Your task to perform on an android device: toggle wifi Image 0: 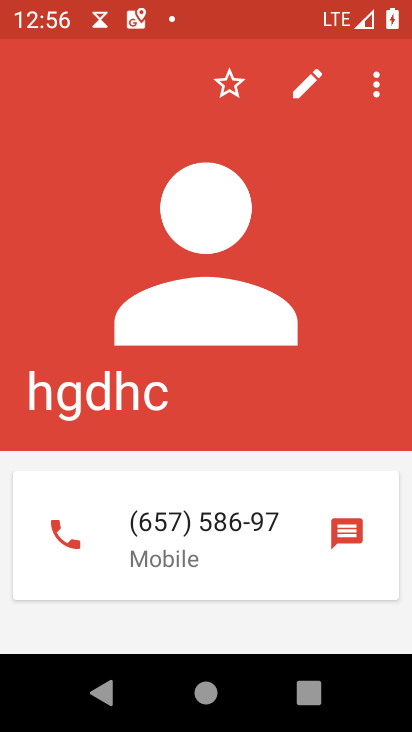
Step 0: press home button
Your task to perform on an android device: toggle wifi Image 1: 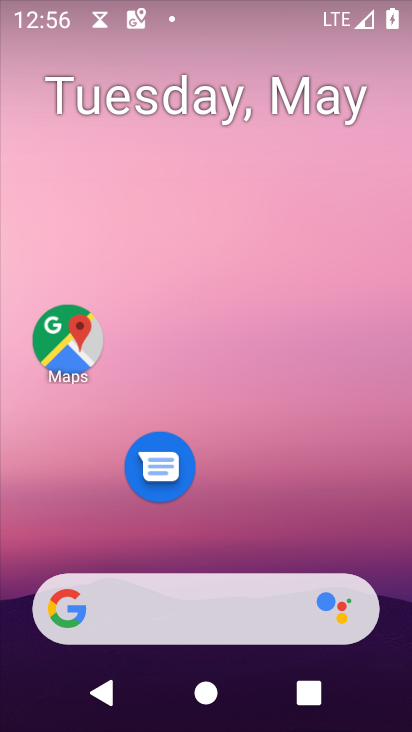
Step 1: drag from (232, 540) to (269, 35)
Your task to perform on an android device: toggle wifi Image 2: 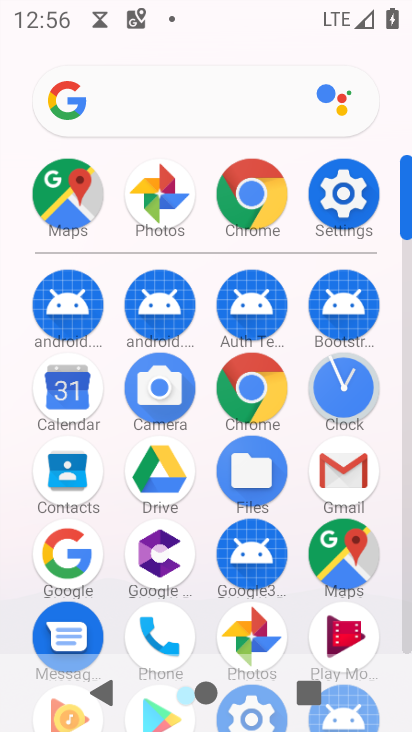
Step 2: click (353, 207)
Your task to perform on an android device: toggle wifi Image 3: 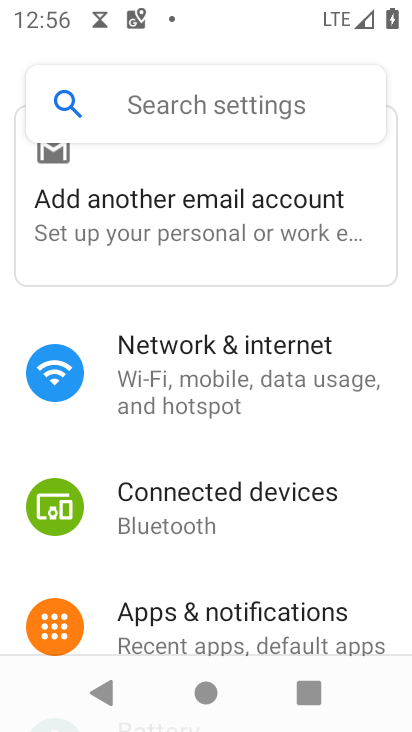
Step 3: click (227, 353)
Your task to perform on an android device: toggle wifi Image 4: 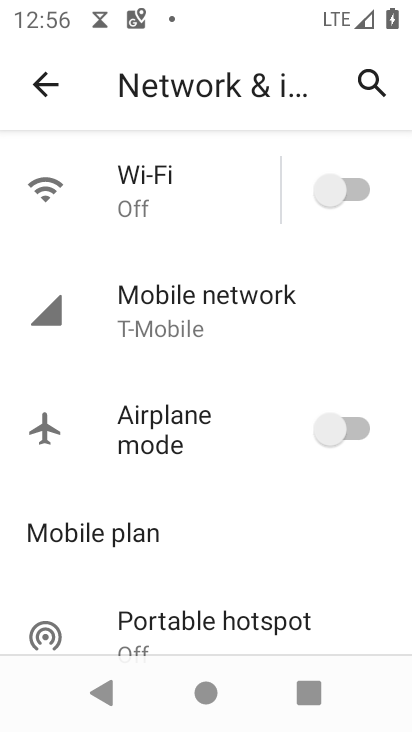
Step 4: click (364, 190)
Your task to perform on an android device: toggle wifi Image 5: 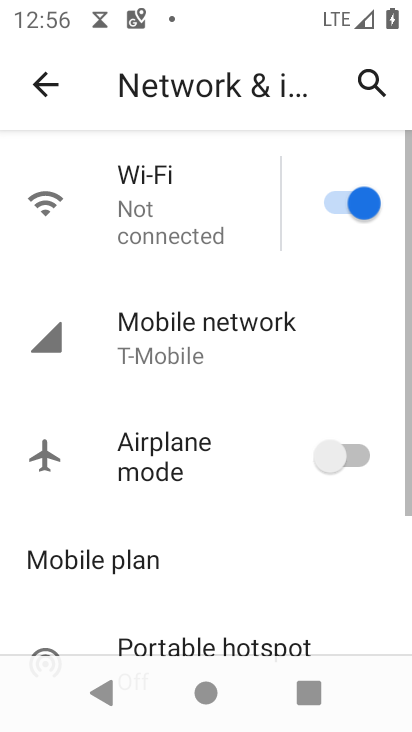
Step 5: task complete